Your task to perform on an android device: Clear the cart on walmart.com. Image 0: 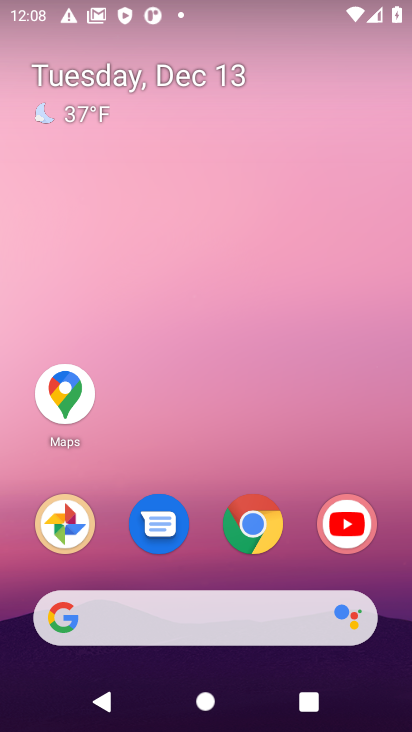
Step 0: click (249, 527)
Your task to perform on an android device: Clear the cart on walmart.com. Image 1: 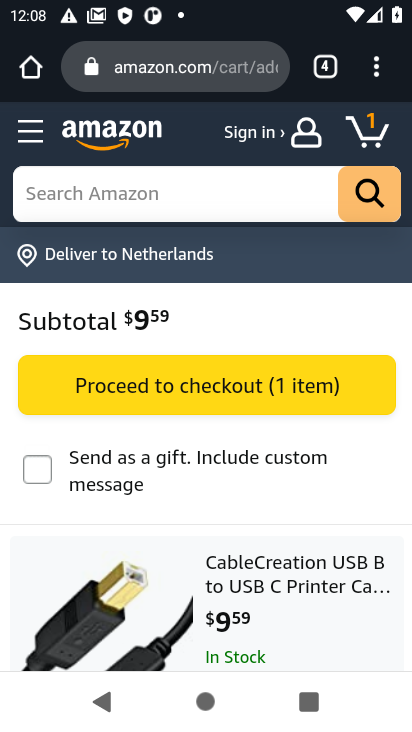
Step 1: click (172, 69)
Your task to perform on an android device: Clear the cart on walmart.com. Image 2: 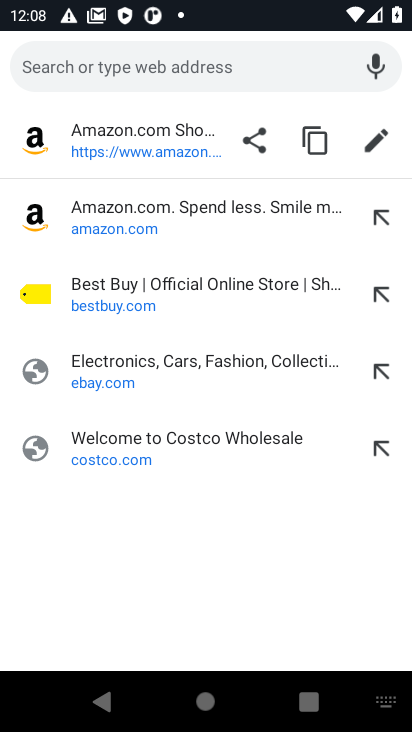
Step 2: type "walmart.com"
Your task to perform on an android device: Clear the cart on walmart.com. Image 3: 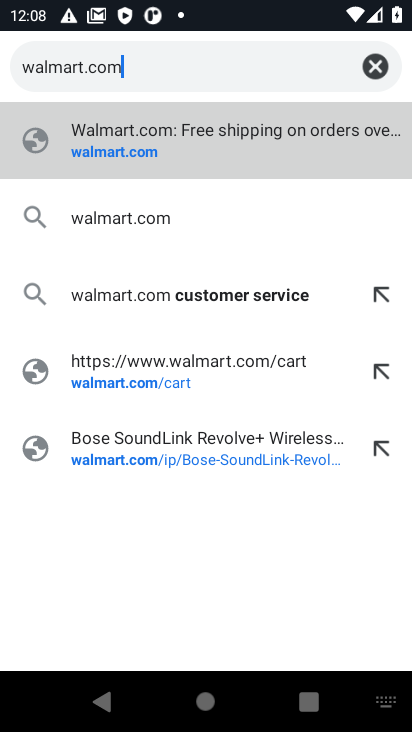
Step 3: click (114, 155)
Your task to perform on an android device: Clear the cart on walmart.com. Image 4: 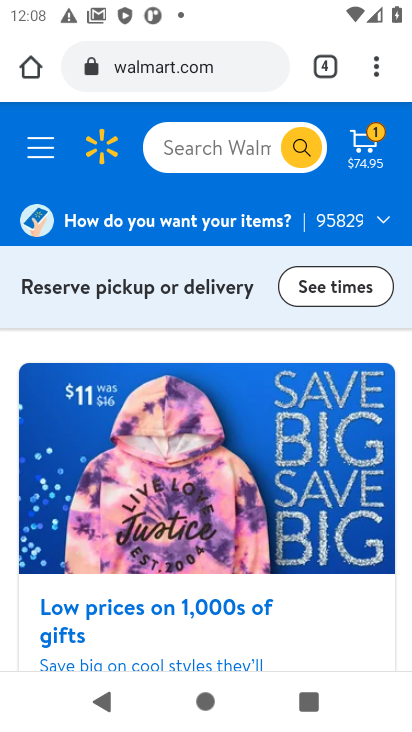
Step 4: click (371, 157)
Your task to perform on an android device: Clear the cart on walmart.com. Image 5: 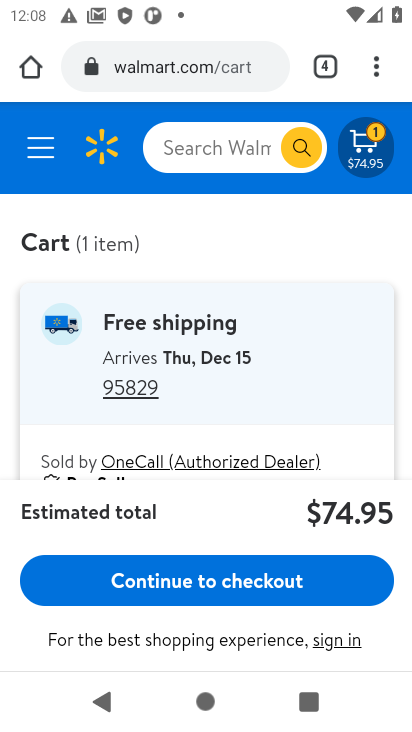
Step 5: drag from (160, 426) to (170, 206)
Your task to perform on an android device: Clear the cart on walmart.com. Image 6: 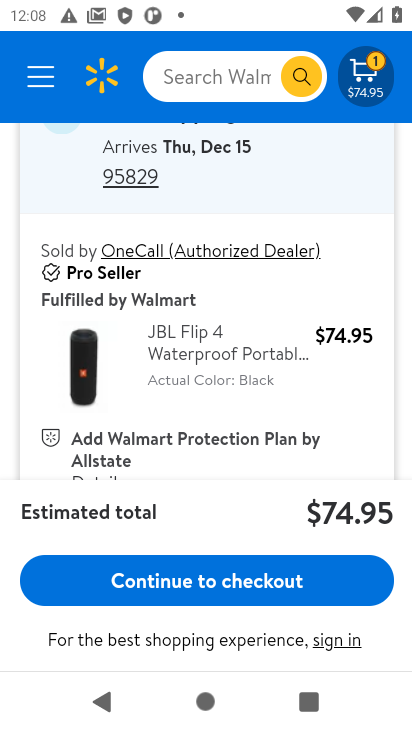
Step 6: drag from (180, 452) to (180, 253)
Your task to perform on an android device: Clear the cart on walmart.com. Image 7: 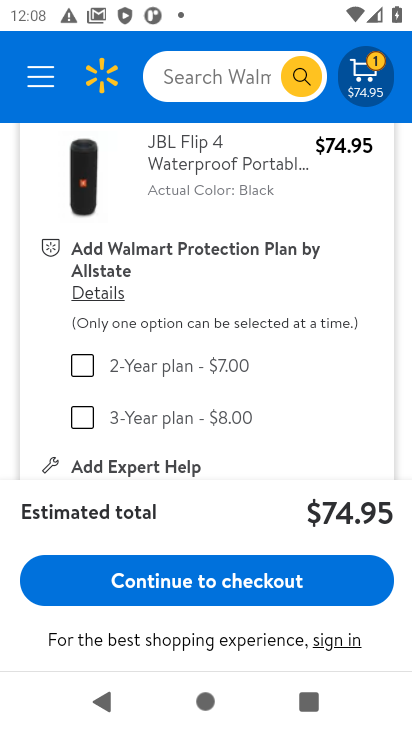
Step 7: drag from (205, 447) to (182, 231)
Your task to perform on an android device: Clear the cart on walmart.com. Image 8: 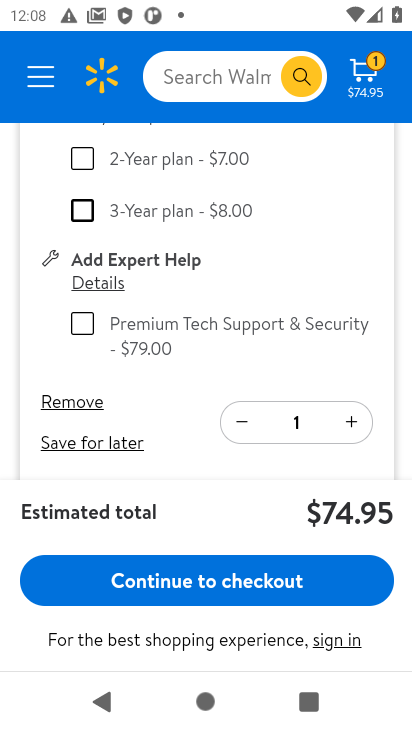
Step 8: click (65, 404)
Your task to perform on an android device: Clear the cart on walmart.com. Image 9: 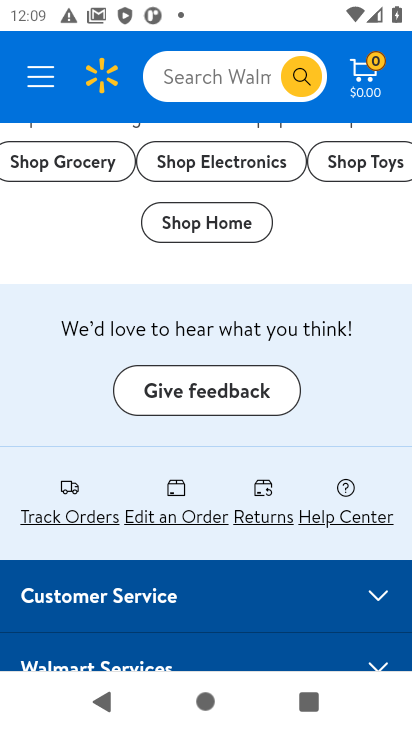
Step 9: task complete